Your task to perform on an android device: Turn off the flashlight Image 0: 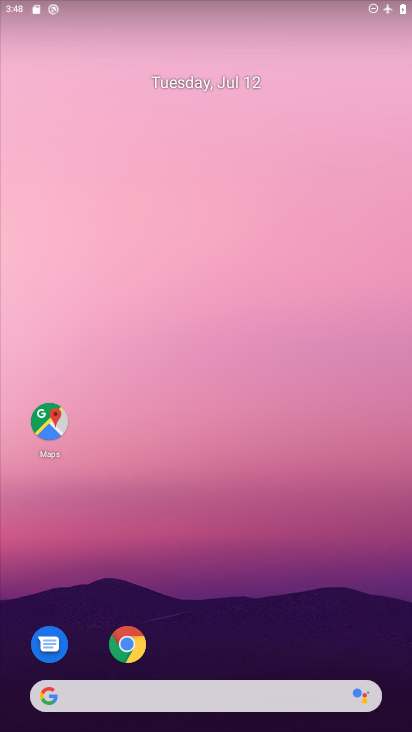
Step 0: drag from (297, 614) to (236, 138)
Your task to perform on an android device: Turn off the flashlight Image 1: 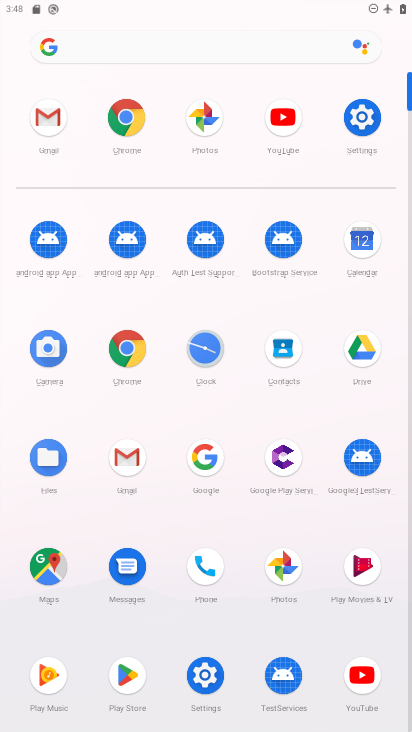
Step 1: click (357, 126)
Your task to perform on an android device: Turn off the flashlight Image 2: 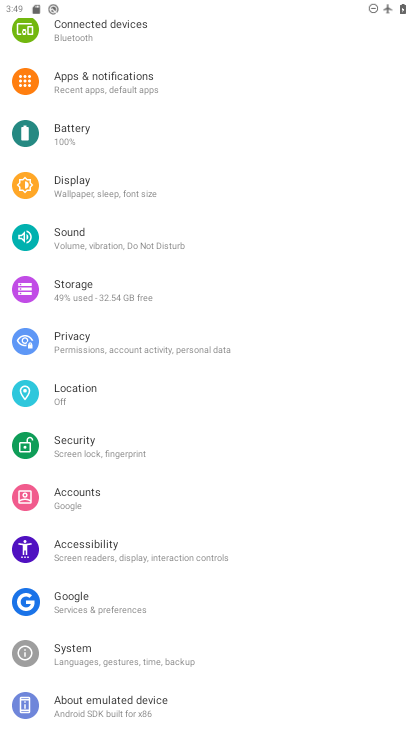
Step 2: click (105, 187)
Your task to perform on an android device: Turn off the flashlight Image 3: 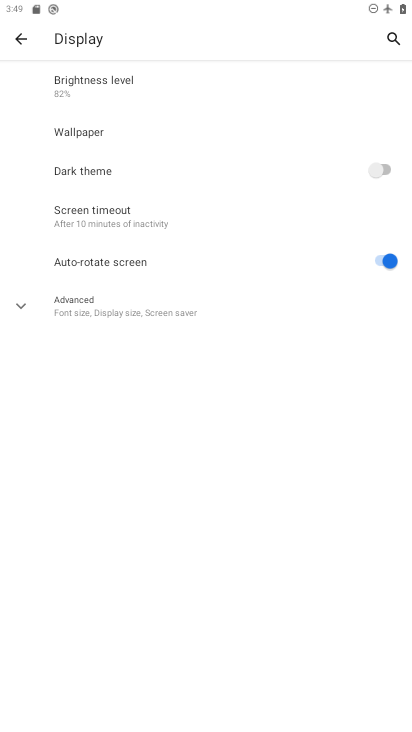
Step 3: task complete